Your task to perform on an android device: Clear the shopping cart on costco.com. Add corsair k70 to the cart on costco.com Image 0: 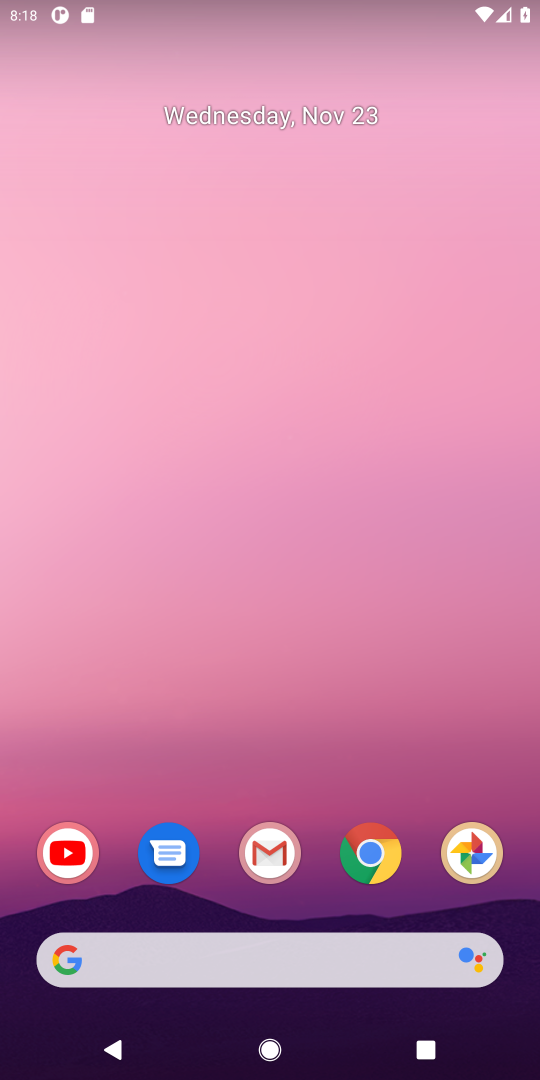
Step 0: click (373, 854)
Your task to perform on an android device: Clear the shopping cart on costco.com. Add corsair k70 to the cart on costco.com Image 1: 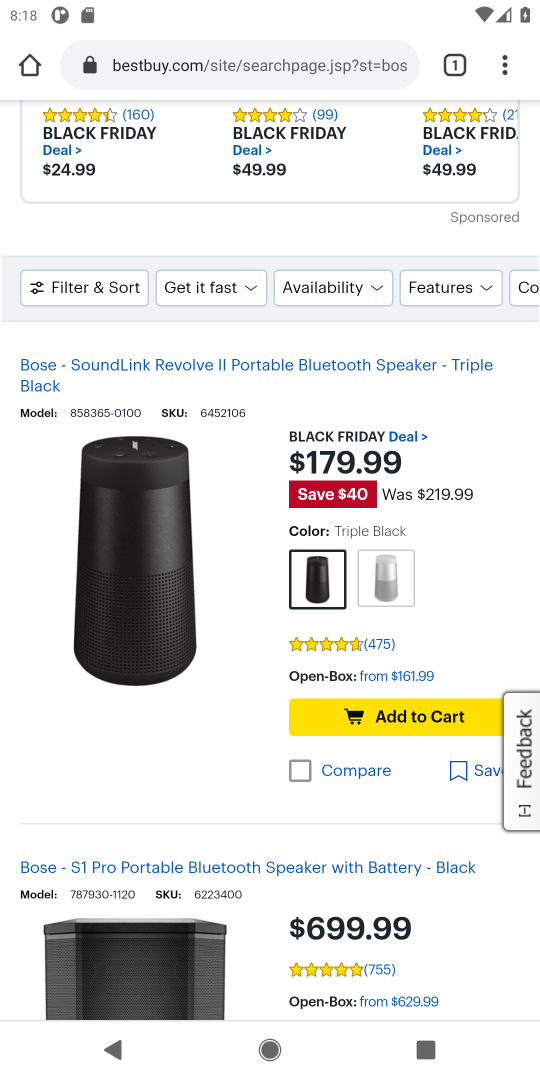
Step 1: click (183, 69)
Your task to perform on an android device: Clear the shopping cart on costco.com. Add corsair k70 to the cart on costco.com Image 2: 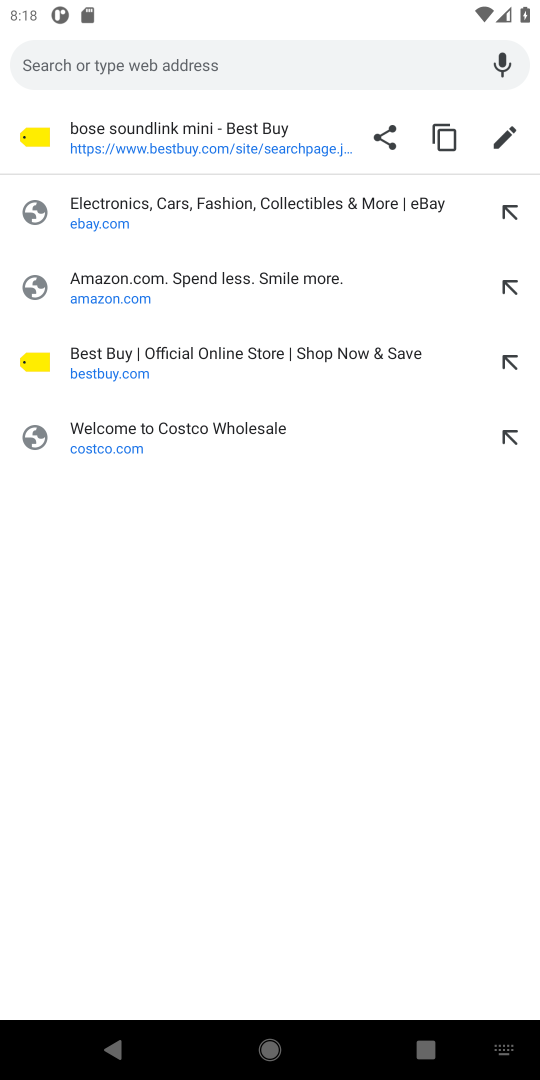
Step 2: click (100, 443)
Your task to perform on an android device: Clear the shopping cart on costco.com. Add corsair k70 to the cart on costco.com Image 3: 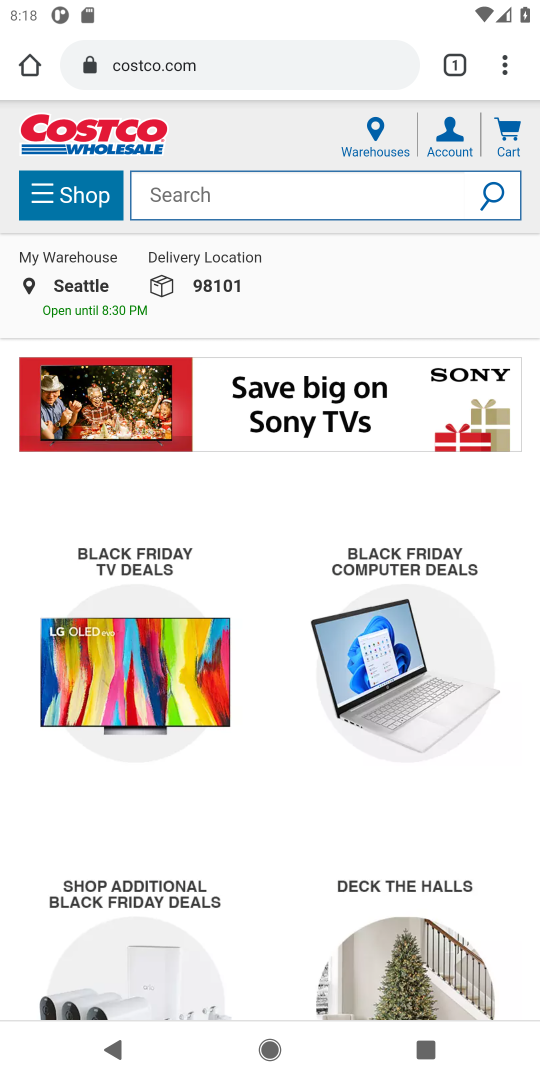
Step 3: click (501, 133)
Your task to perform on an android device: Clear the shopping cart on costco.com. Add corsair k70 to the cart on costco.com Image 4: 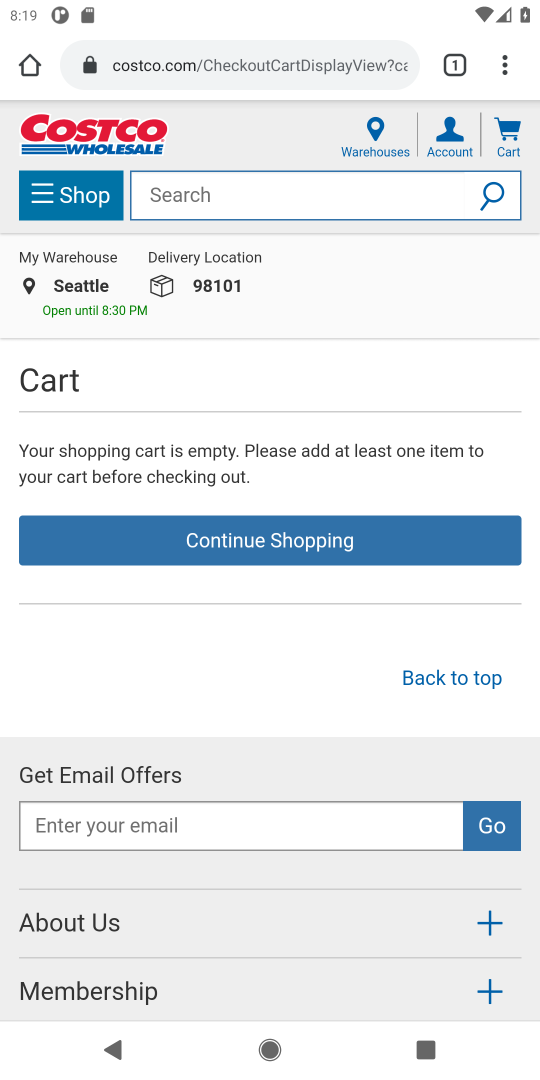
Step 4: click (183, 197)
Your task to perform on an android device: Clear the shopping cart on costco.com. Add corsair k70 to the cart on costco.com Image 5: 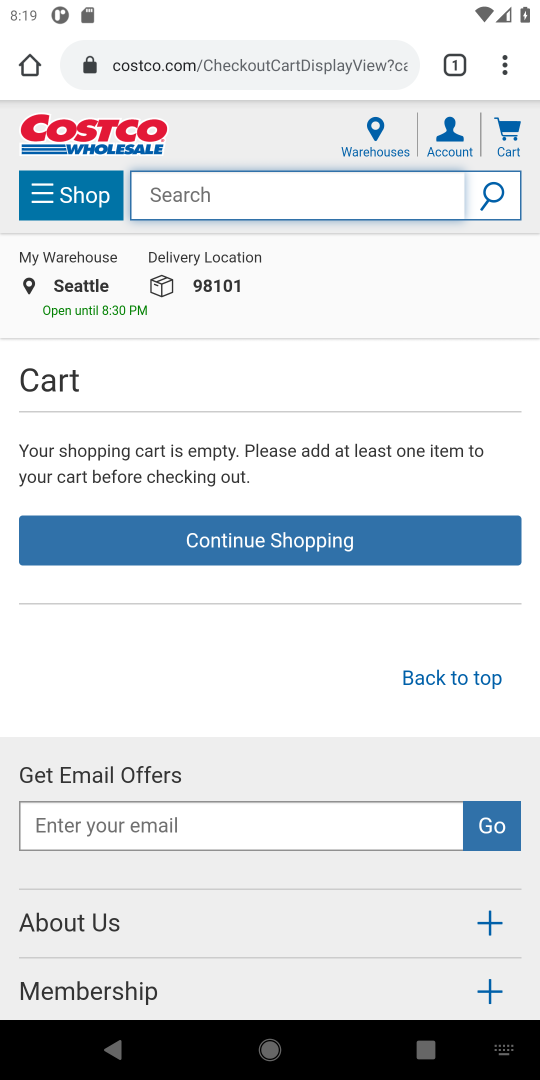
Step 5: type "corsair k70 "
Your task to perform on an android device: Clear the shopping cart on costco.com. Add corsair k70 to the cart on costco.com Image 6: 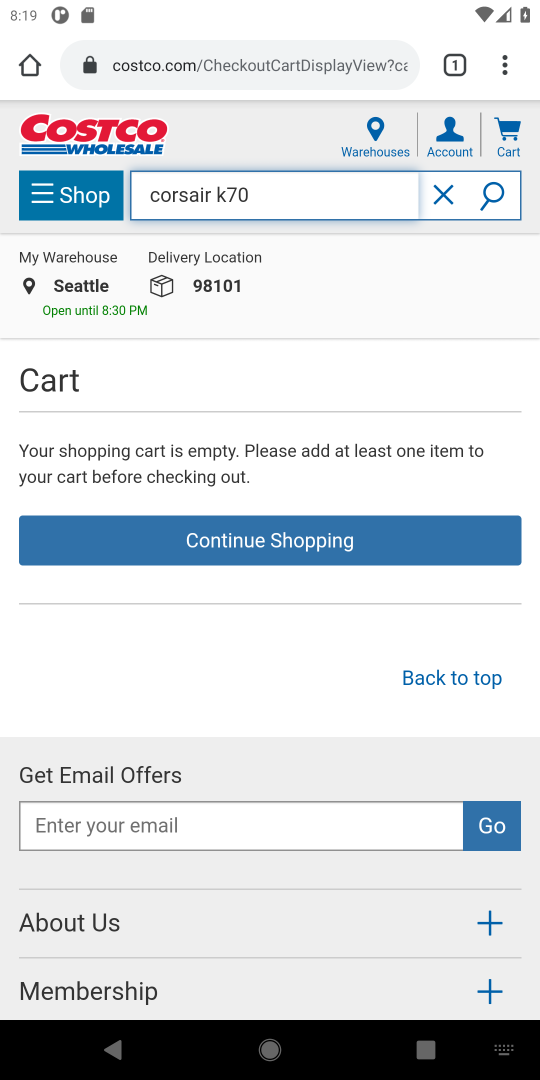
Step 6: click (505, 190)
Your task to perform on an android device: Clear the shopping cart on costco.com. Add corsair k70 to the cart on costco.com Image 7: 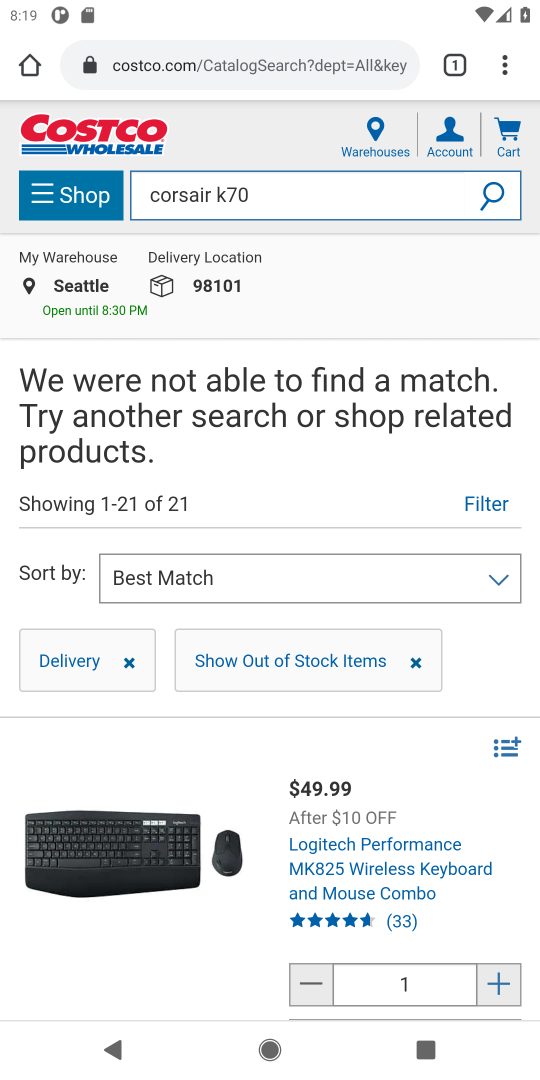
Step 7: task complete